Your task to perform on an android device: Open notification settings Image 0: 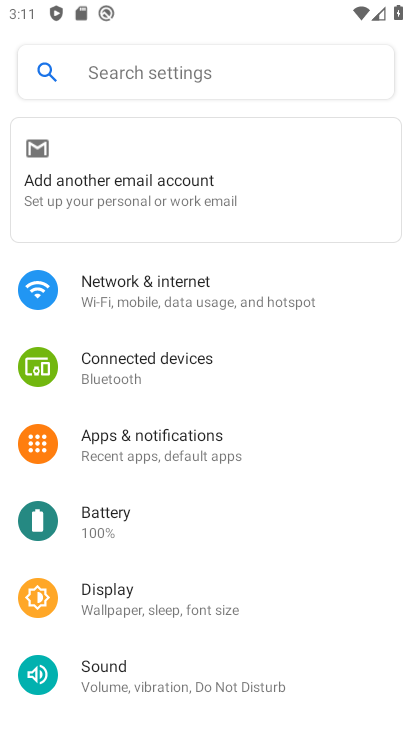
Step 0: click (197, 450)
Your task to perform on an android device: Open notification settings Image 1: 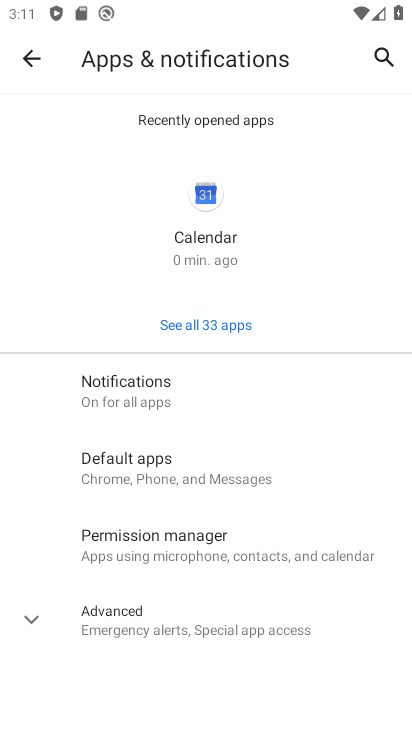
Step 1: click (193, 414)
Your task to perform on an android device: Open notification settings Image 2: 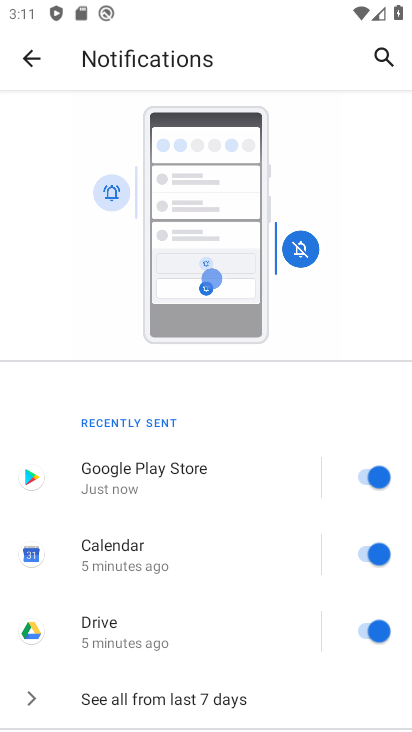
Step 2: task complete